Your task to perform on an android device: remove spam from my inbox in the gmail app Image 0: 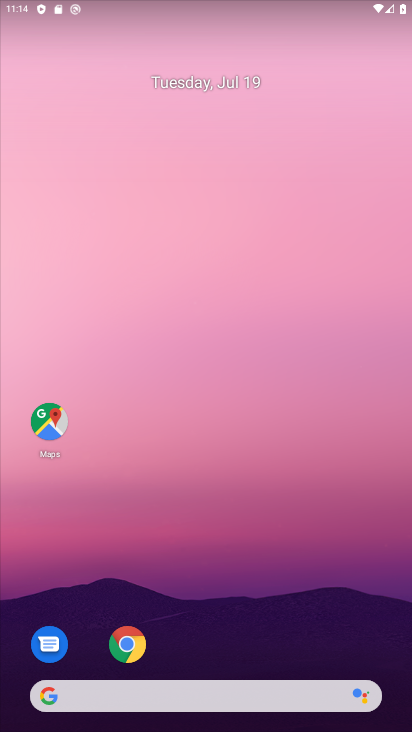
Step 0: drag from (46, 496) to (109, 194)
Your task to perform on an android device: remove spam from my inbox in the gmail app Image 1: 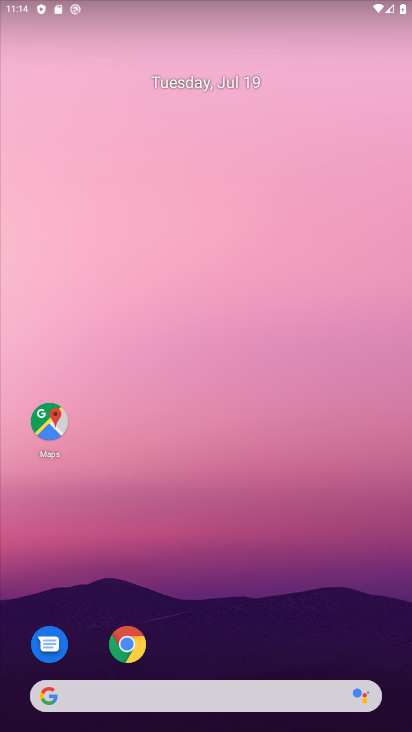
Step 1: drag from (1, 683) to (263, 38)
Your task to perform on an android device: remove spam from my inbox in the gmail app Image 2: 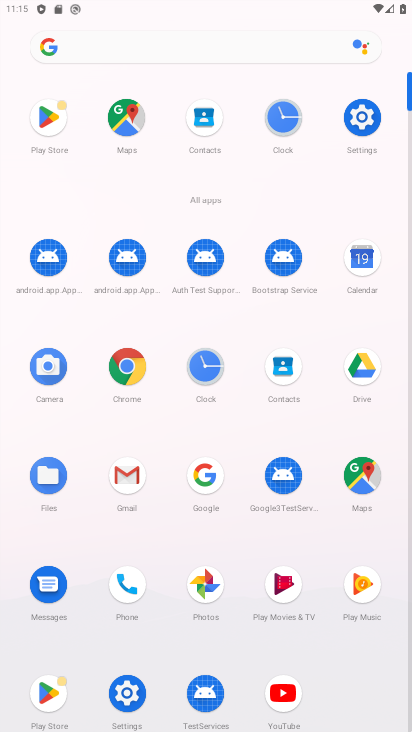
Step 2: click (122, 483)
Your task to perform on an android device: remove spam from my inbox in the gmail app Image 3: 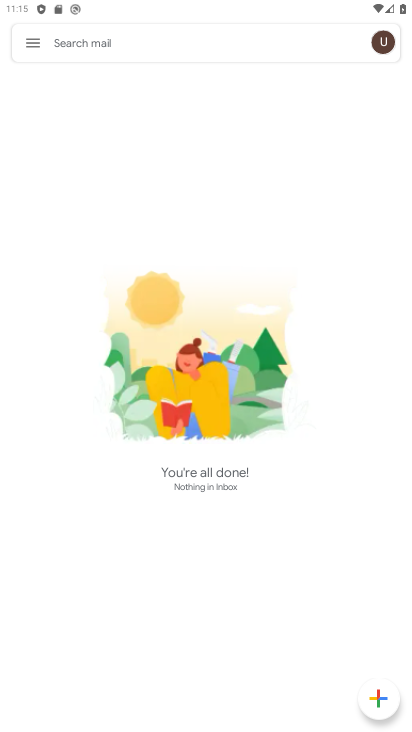
Step 3: click (29, 42)
Your task to perform on an android device: remove spam from my inbox in the gmail app Image 4: 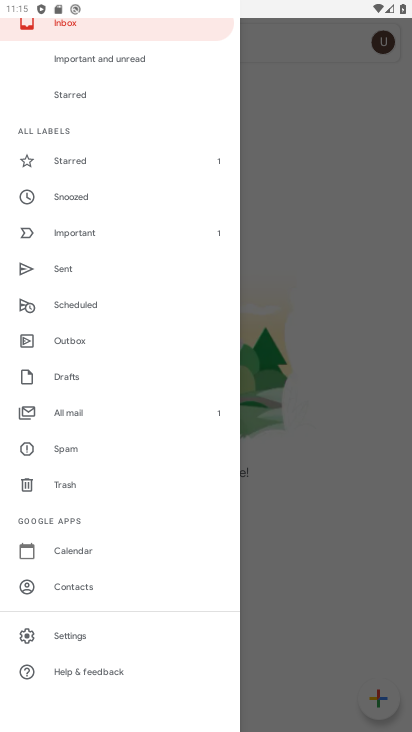
Step 4: click (67, 451)
Your task to perform on an android device: remove spam from my inbox in the gmail app Image 5: 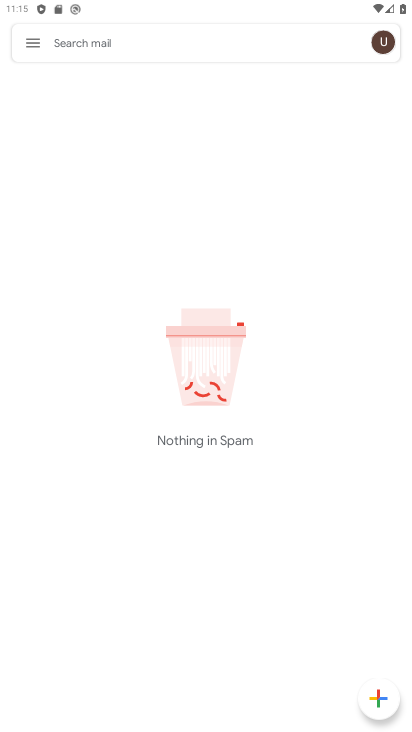
Step 5: task complete